Your task to perform on an android device: turn off sleep mode Image 0: 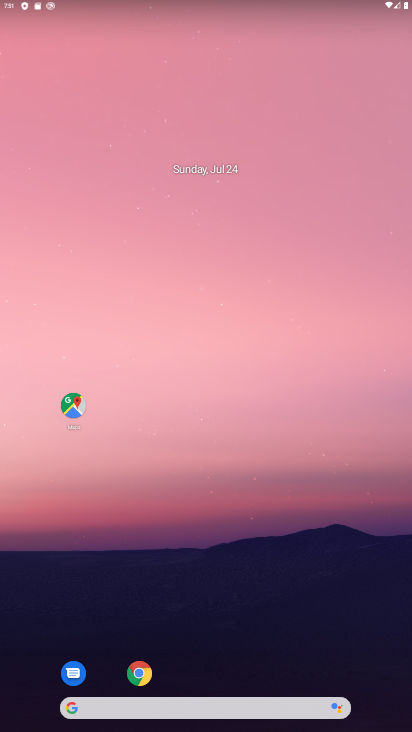
Step 0: drag from (165, 648) to (193, 169)
Your task to perform on an android device: turn off sleep mode Image 1: 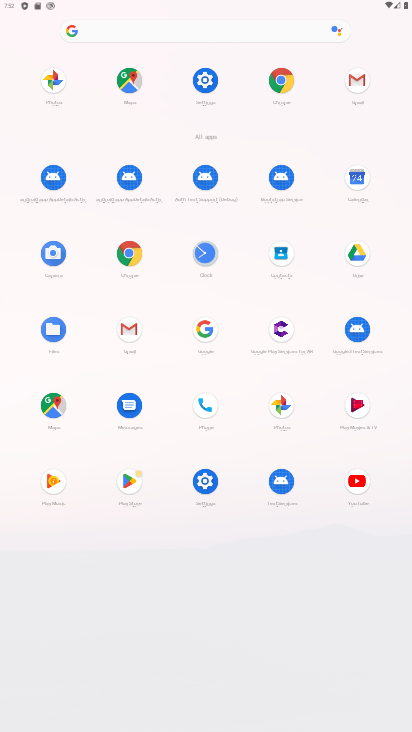
Step 1: click (204, 85)
Your task to perform on an android device: turn off sleep mode Image 2: 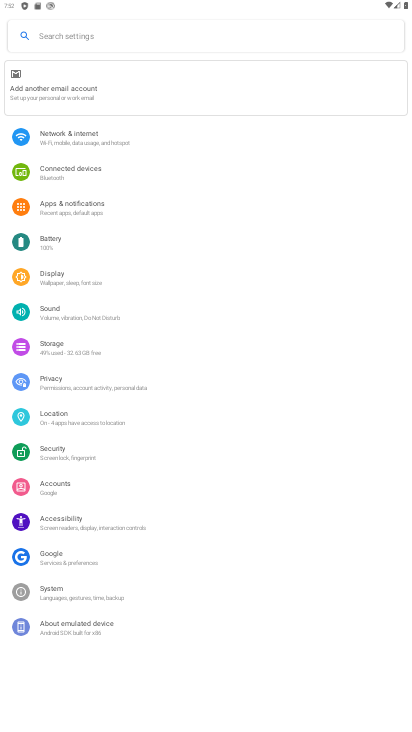
Step 2: task complete